Your task to perform on an android device: Open ESPN.com Image 0: 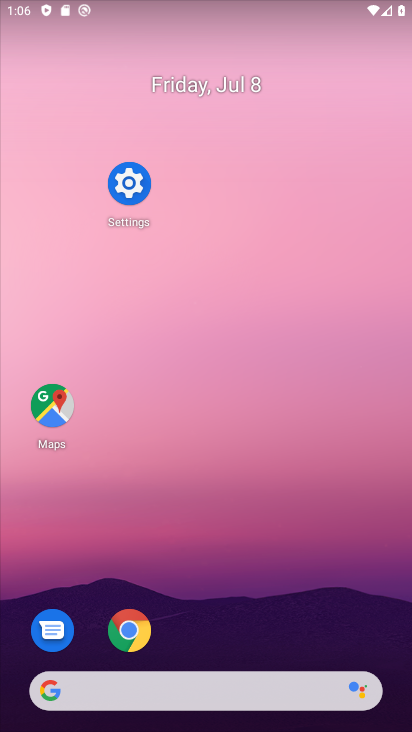
Step 0: click (135, 632)
Your task to perform on an android device: Open ESPN.com Image 1: 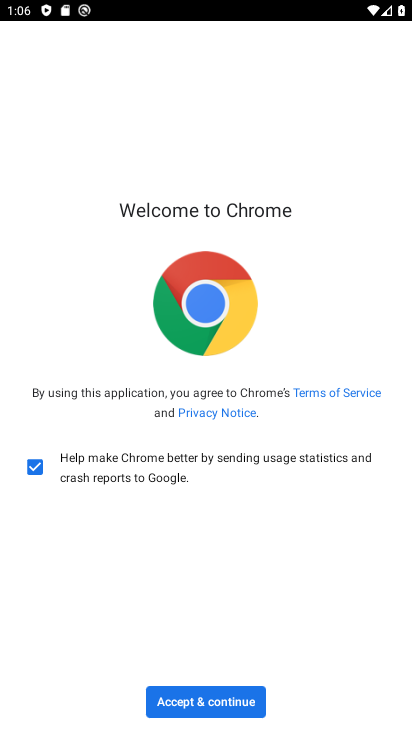
Step 1: click (214, 710)
Your task to perform on an android device: Open ESPN.com Image 2: 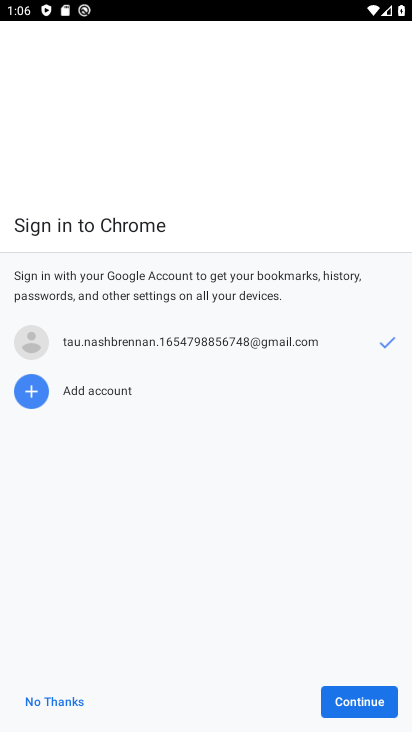
Step 2: click (349, 704)
Your task to perform on an android device: Open ESPN.com Image 3: 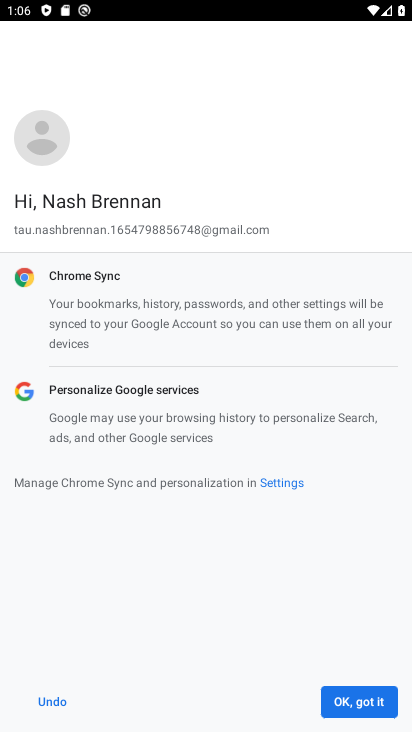
Step 3: click (344, 699)
Your task to perform on an android device: Open ESPN.com Image 4: 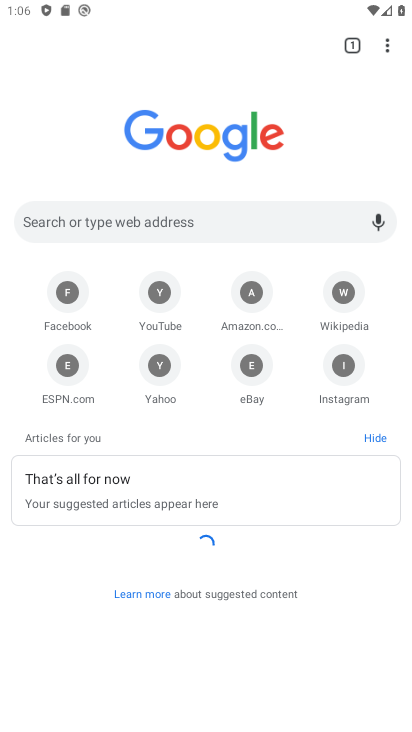
Step 4: click (71, 369)
Your task to perform on an android device: Open ESPN.com Image 5: 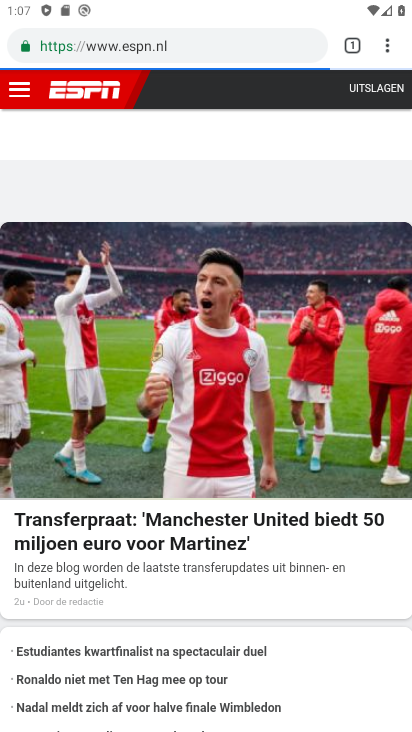
Step 5: task complete